Your task to perform on an android device: change text size in settings app Image 0: 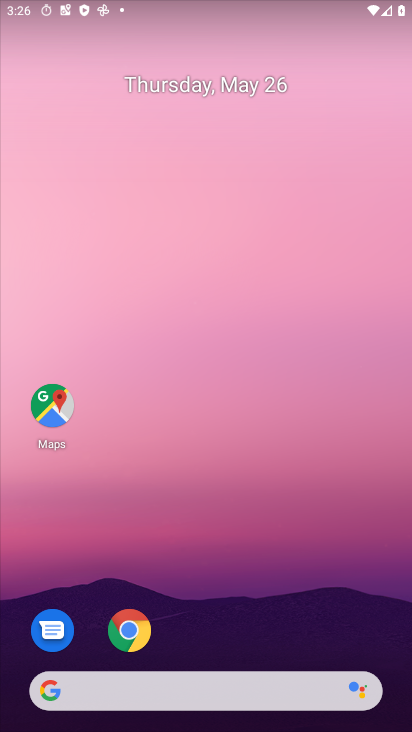
Step 0: drag from (196, 628) to (188, 271)
Your task to perform on an android device: change text size in settings app Image 1: 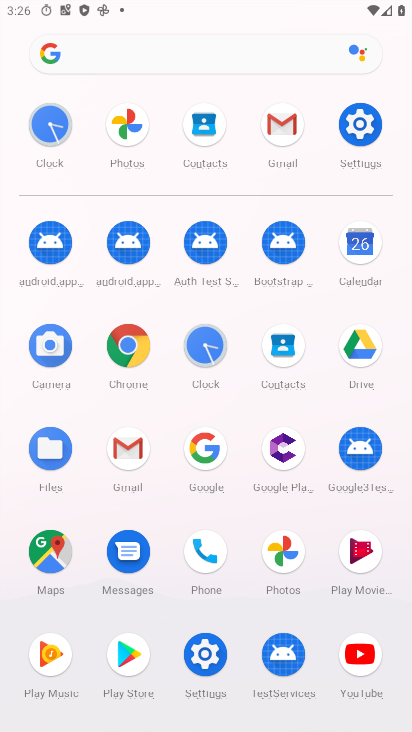
Step 1: click (348, 126)
Your task to perform on an android device: change text size in settings app Image 2: 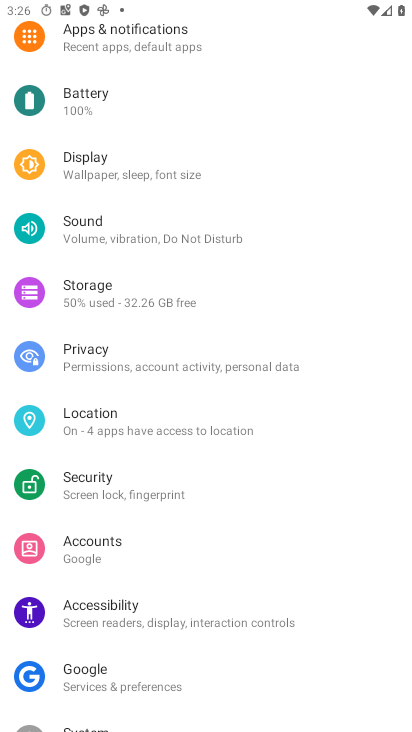
Step 2: click (180, 175)
Your task to perform on an android device: change text size in settings app Image 3: 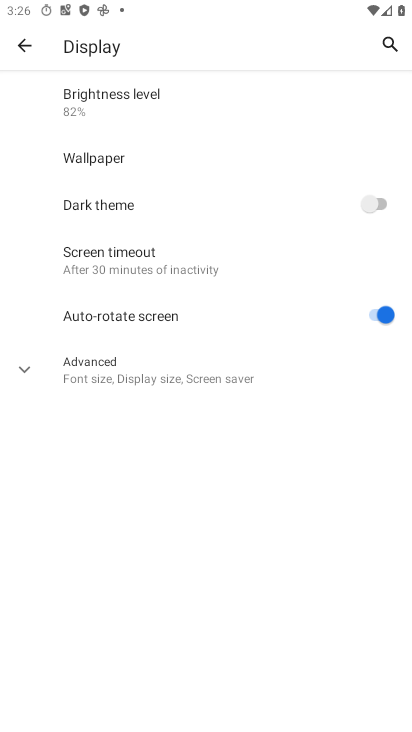
Step 3: click (112, 358)
Your task to perform on an android device: change text size in settings app Image 4: 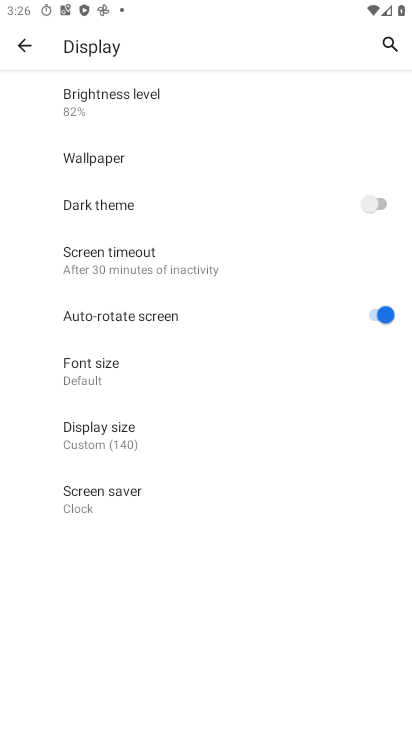
Step 4: click (92, 375)
Your task to perform on an android device: change text size in settings app Image 5: 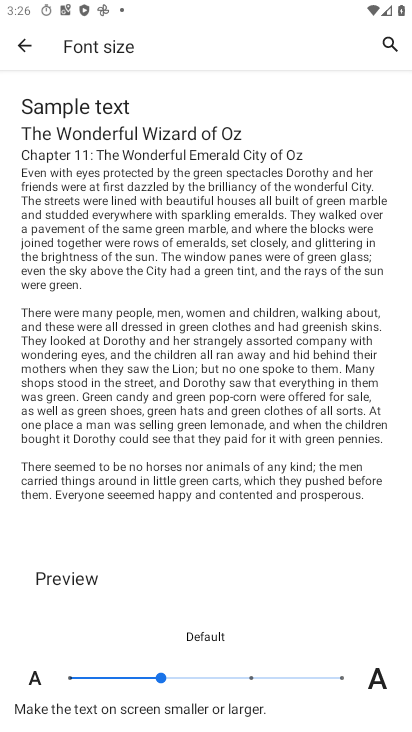
Step 5: click (70, 677)
Your task to perform on an android device: change text size in settings app Image 6: 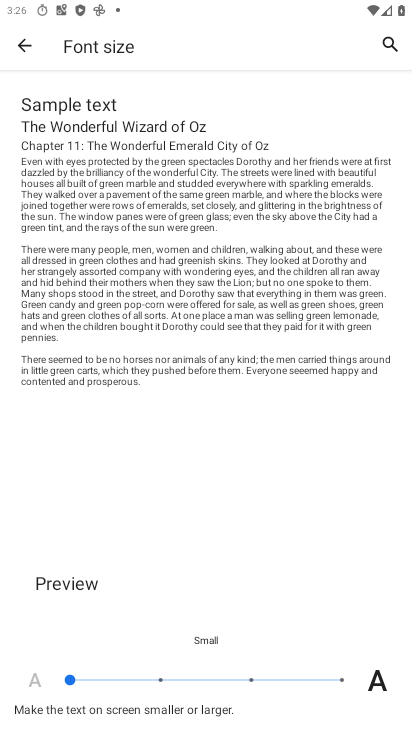
Step 6: task complete